Your task to perform on an android device: Open my contact list Image 0: 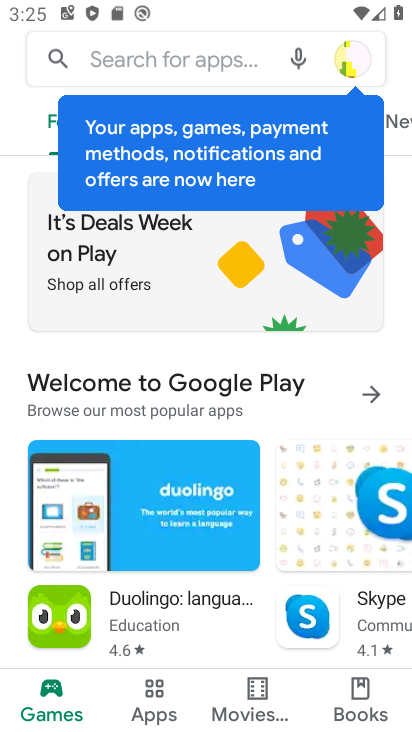
Step 0: press back button
Your task to perform on an android device: Open my contact list Image 1: 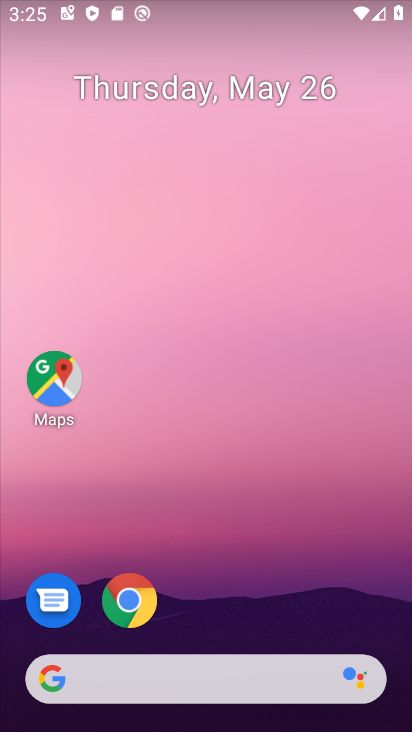
Step 1: drag from (246, 564) to (220, 19)
Your task to perform on an android device: Open my contact list Image 2: 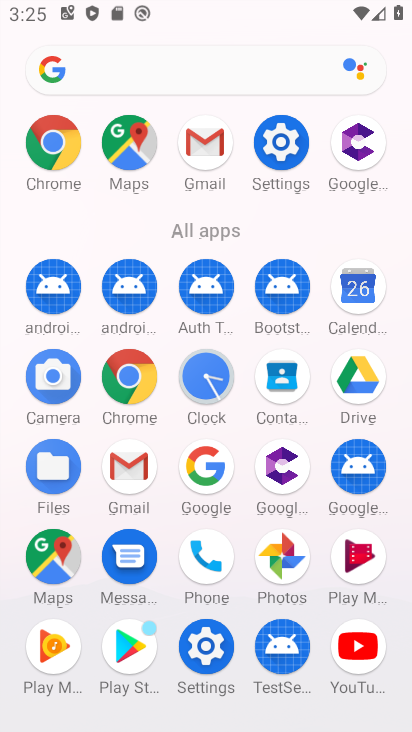
Step 2: drag from (5, 610) to (18, 271)
Your task to perform on an android device: Open my contact list Image 3: 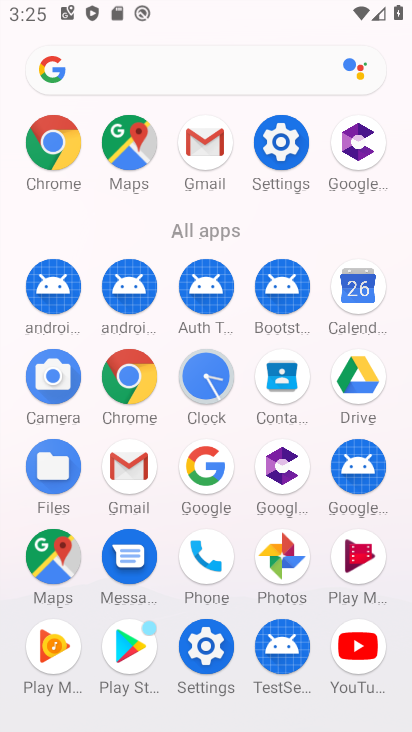
Step 3: click (278, 374)
Your task to perform on an android device: Open my contact list Image 4: 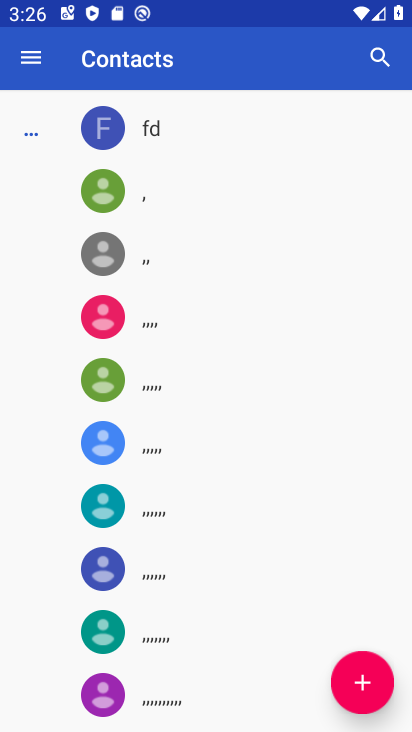
Step 4: task complete